Your task to perform on an android device: Look up the best selling books on Goodreads. Image 0: 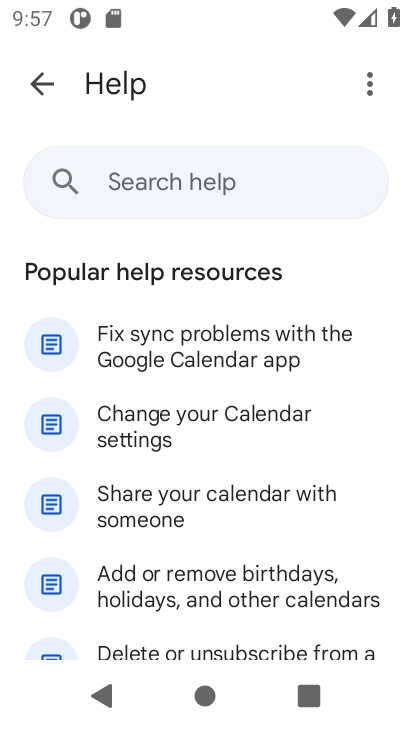
Step 0: click (303, 360)
Your task to perform on an android device: Look up the best selling books on Goodreads. Image 1: 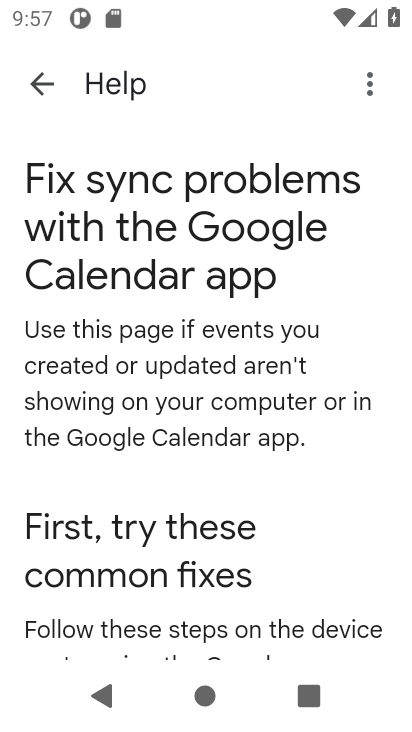
Step 1: task complete